Your task to perform on an android device: Turn on the flashlight Image 0: 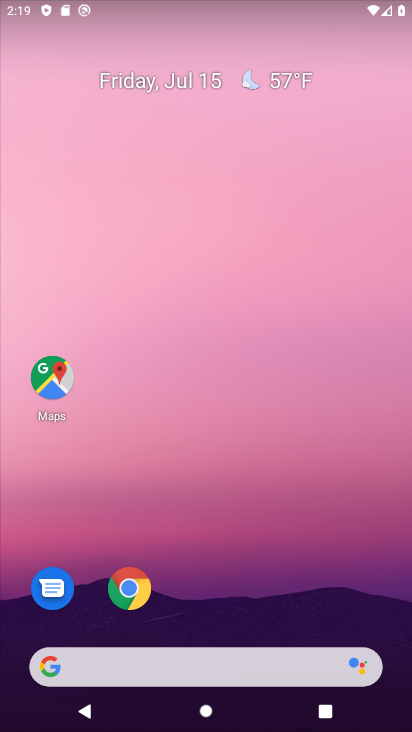
Step 0: drag from (182, 547) to (166, 175)
Your task to perform on an android device: Turn on the flashlight Image 1: 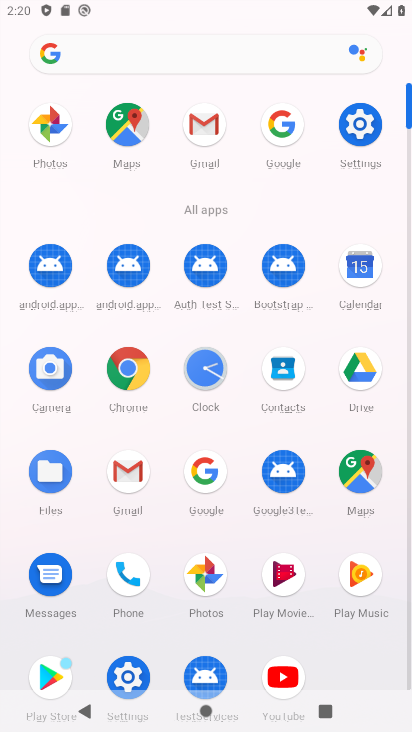
Step 1: click (353, 128)
Your task to perform on an android device: Turn on the flashlight Image 2: 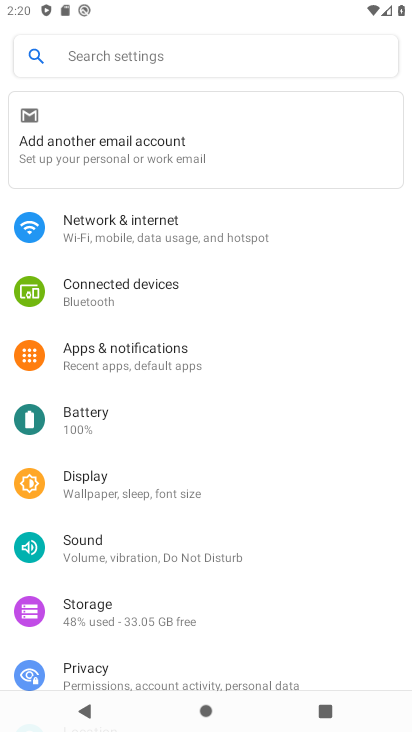
Step 2: click (83, 477)
Your task to perform on an android device: Turn on the flashlight Image 3: 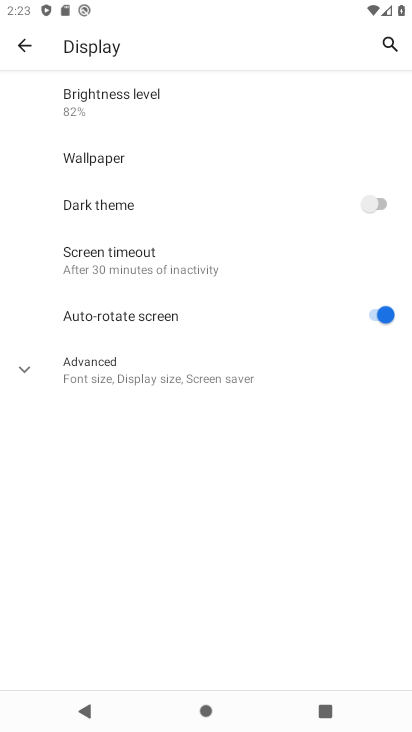
Step 3: task complete